Your task to perform on an android device: Empty the shopping cart on bestbuy. Add "rayovac triple a" to the cart on bestbuy Image 0: 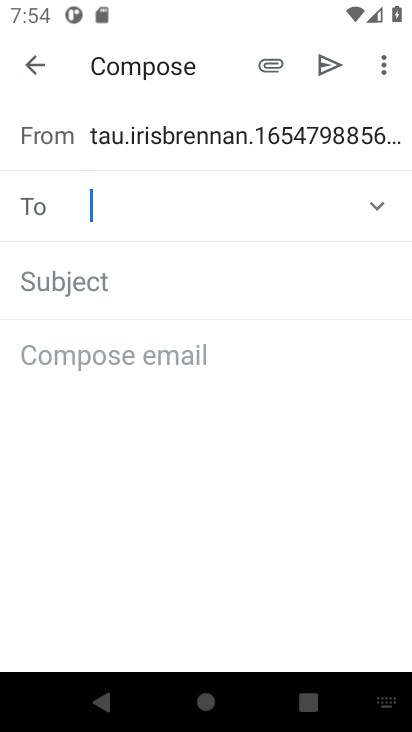
Step 0: press home button
Your task to perform on an android device: Empty the shopping cart on bestbuy. Add "rayovac triple a" to the cart on bestbuy Image 1: 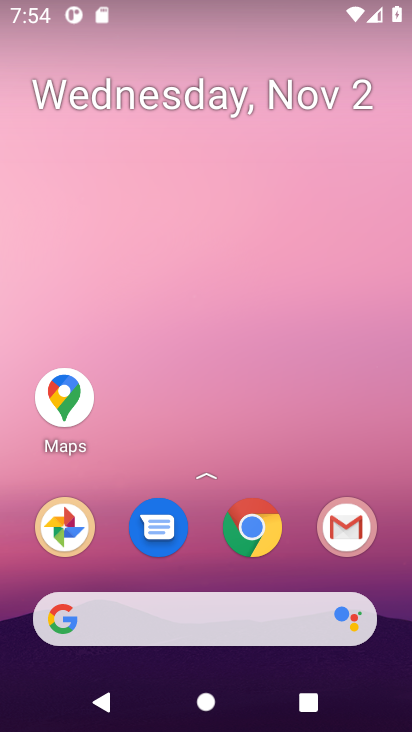
Step 1: click (255, 520)
Your task to perform on an android device: Empty the shopping cart on bestbuy. Add "rayovac triple a" to the cart on bestbuy Image 2: 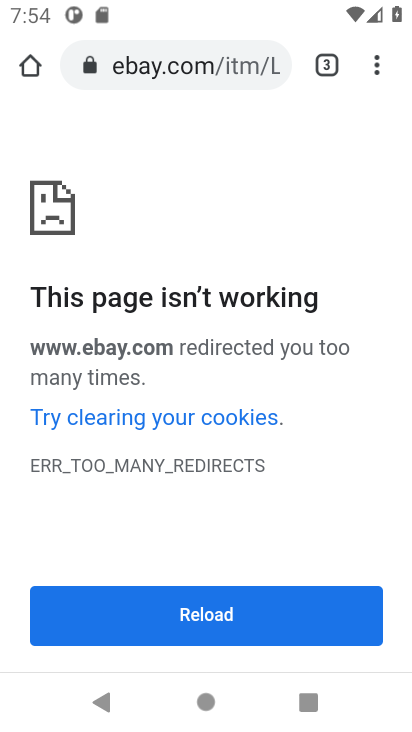
Step 2: click (205, 68)
Your task to perform on an android device: Empty the shopping cart on bestbuy. Add "rayovac triple a" to the cart on bestbuy Image 3: 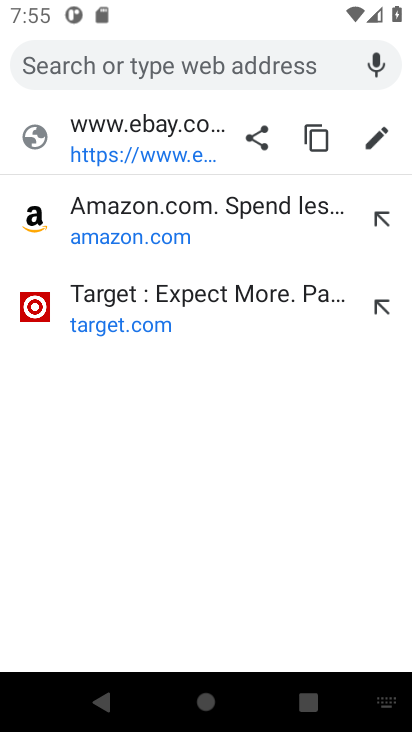
Step 3: type "bestbuy"
Your task to perform on an android device: Empty the shopping cart on bestbuy. Add "rayovac triple a" to the cart on bestbuy Image 4: 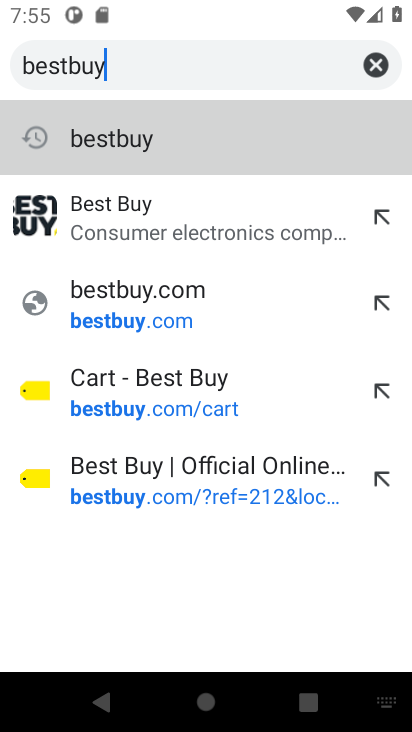
Step 4: click (170, 136)
Your task to perform on an android device: Empty the shopping cart on bestbuy. Add "rayovac triple a" to the cart on bestbuy Image 5: 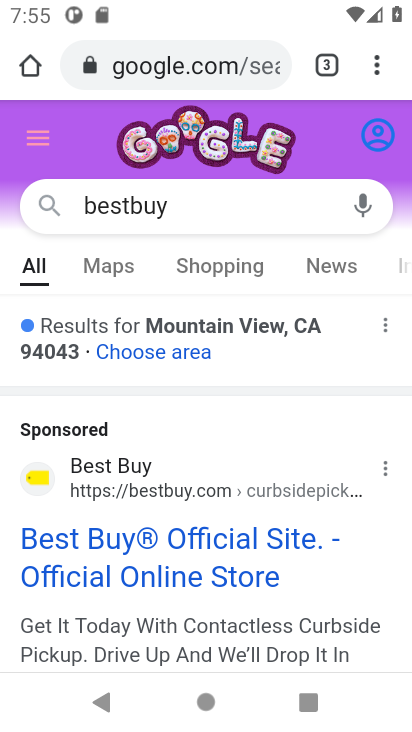
Step 5: click (122, 535)
Your task to perform on an android device: Empty the shopping cart on bestbuy. Add "rayovac triple a" to the cart on bestbuy Image 6: 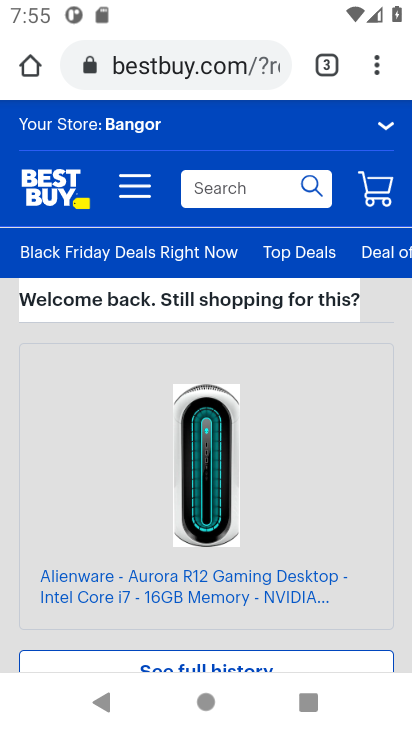
Step 6: click (377, 190)
Your task to perform on an android device: Empty the shopping cart on bestbuy. Add "rayovac triple a" to the cart on bestbuy Image 7: 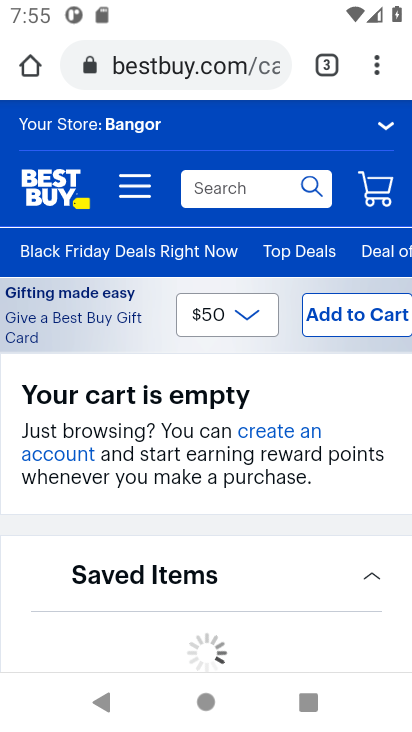
Step 7: click (261, 190)
Your task to perform on an android device: Empty the shopping cart on bestbuy. Add "rayovac triple a" to the cart on bestbuy Image 8: 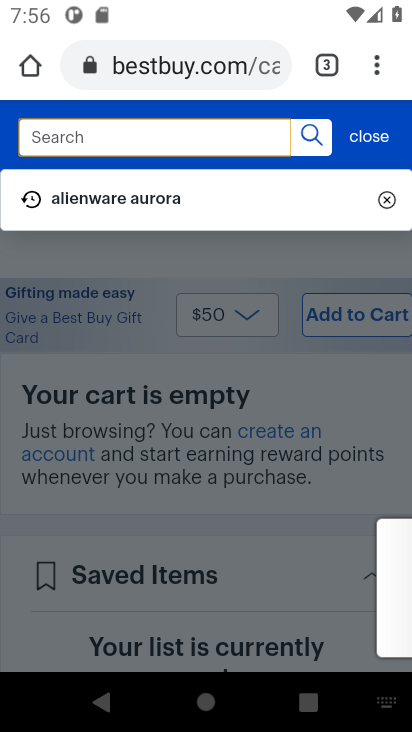
Step 8: type "rayovac triple a"
Your task to perform on an android device: Empty the shopping cart on bestbuy. Add "rayovac triple a" to the cart on bestbuy Image 9: 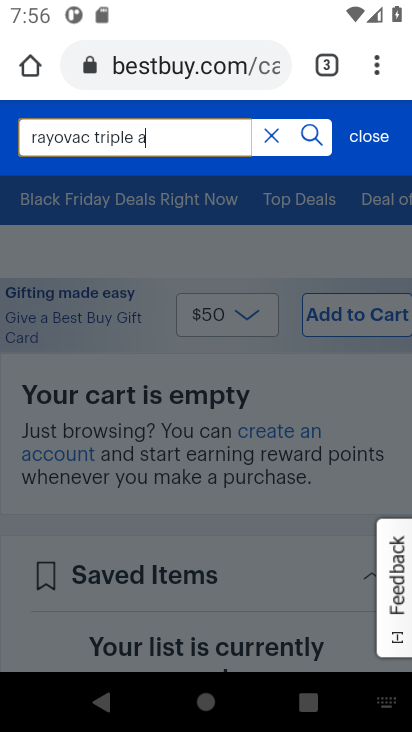
Step 9: press enter
Your task to perform on an android device: Empty the shopping cart on bestbuy. Add "rayovac triple a" to the cart on bestbuy Image 10: 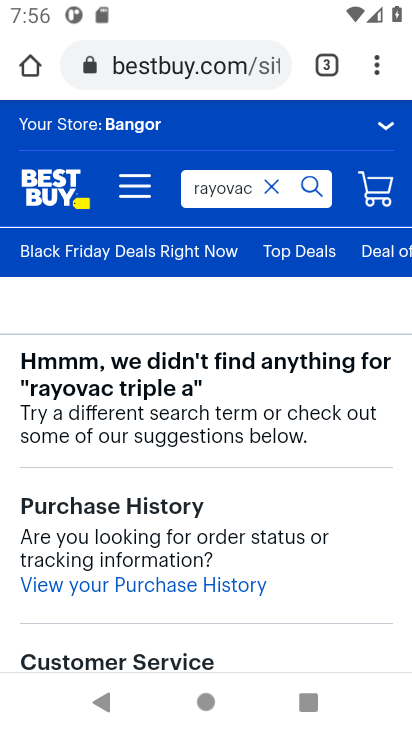
Step 10: task complete